Your task to perform on an android device: Open maps Image 0: 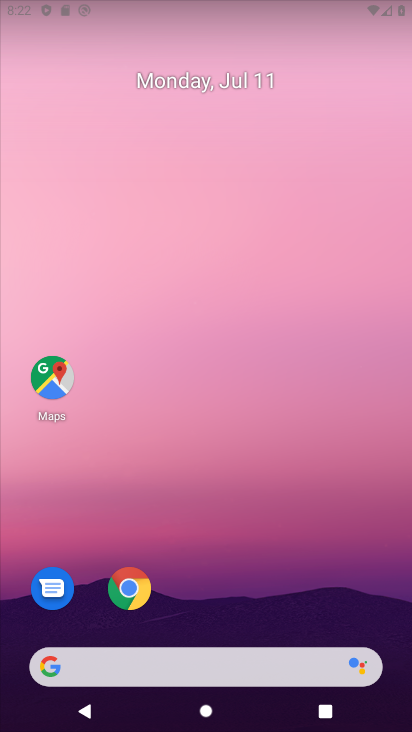
Step 0: click (51, 389)
Your task to perform on an android device: Open maps Image 1: 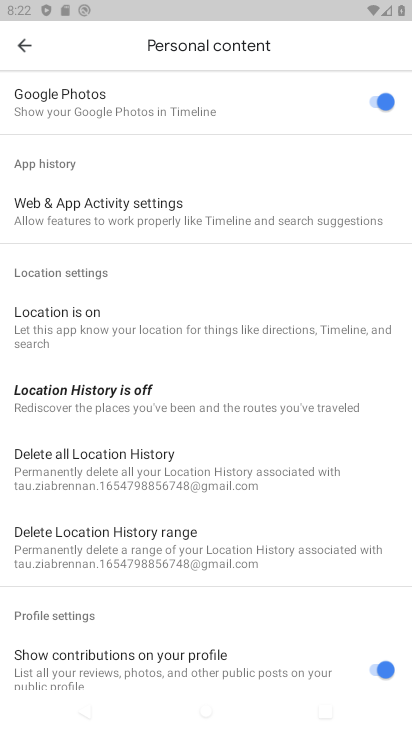
Step 1: click (21, 44)
Your task to perform on an android device: Open maps Image 2: 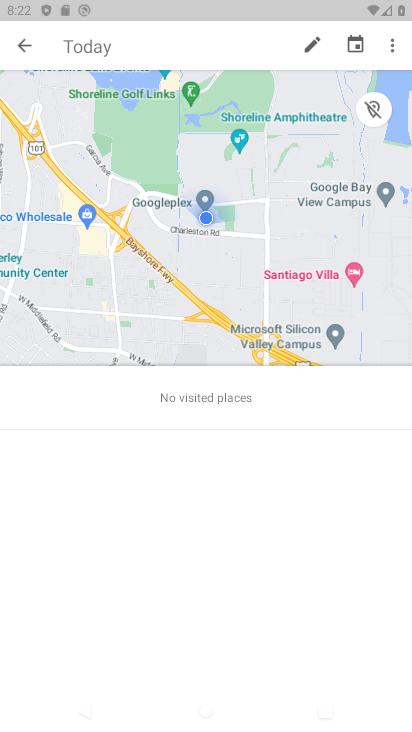
Step 2: task complete